Your task to perform on an android device: What's the weather going to be tomorrow? Image 0: 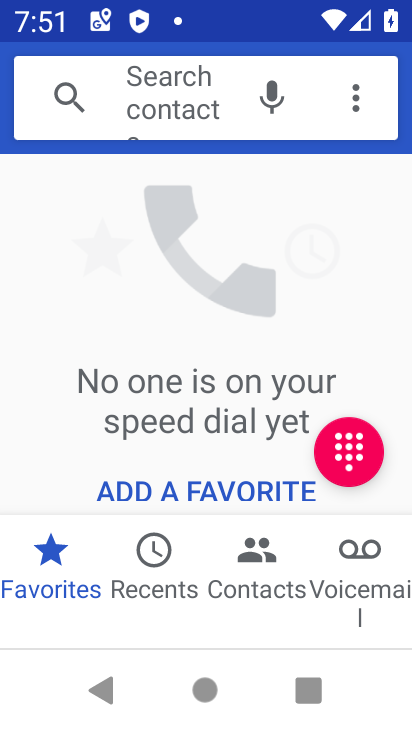
Step 0: press home button
Your task to perform on an android device: What's the weather going to be tomorrow? Image 1: 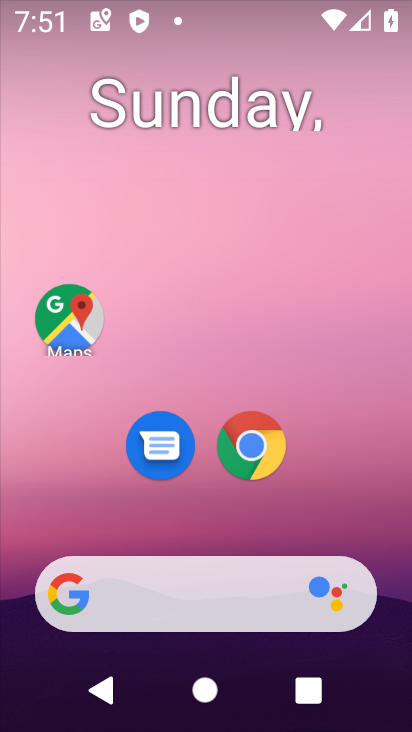
Step 1: click (198, 610)
Your task to perform on an android device: What's the weather going to be tomorrow? Image 2: 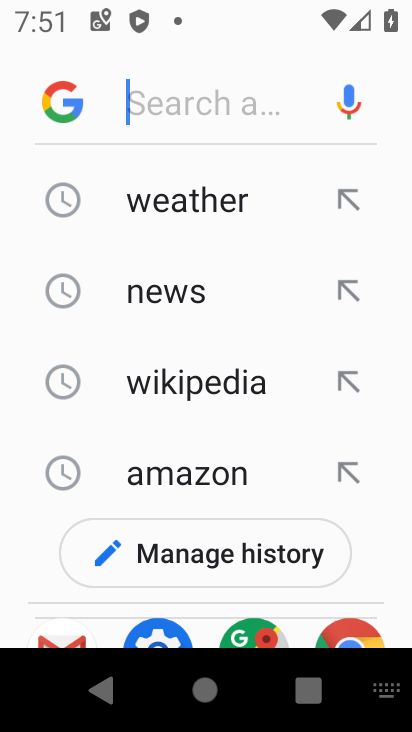
Step 2: click (178, 208)
Your task to perform on an android device: What's the weather going to be tomorrow? Image 3: 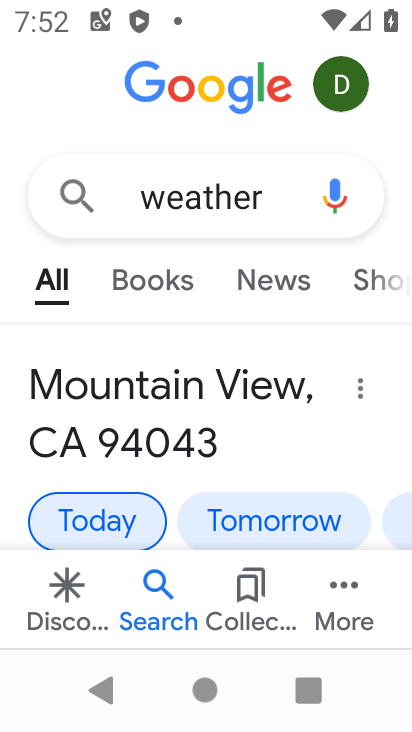
Step 3: click (227, 525)
Your task to perform on an android device: What's the weather going to be tomorrow? Image 4: 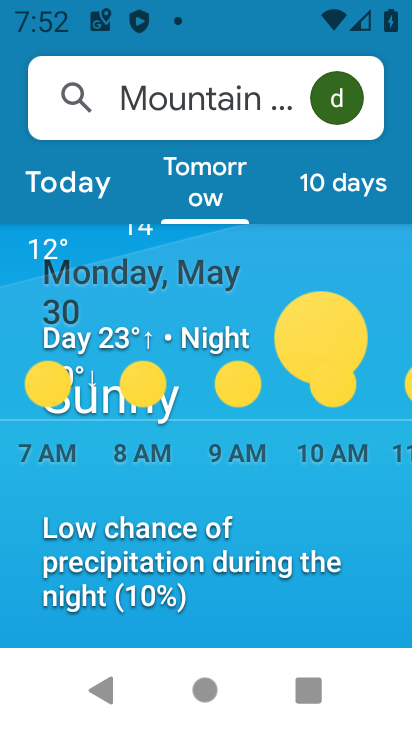
Step 4: task complete